Your task to perform on an android device: turn vacation reply on in the gmail app Image 0: 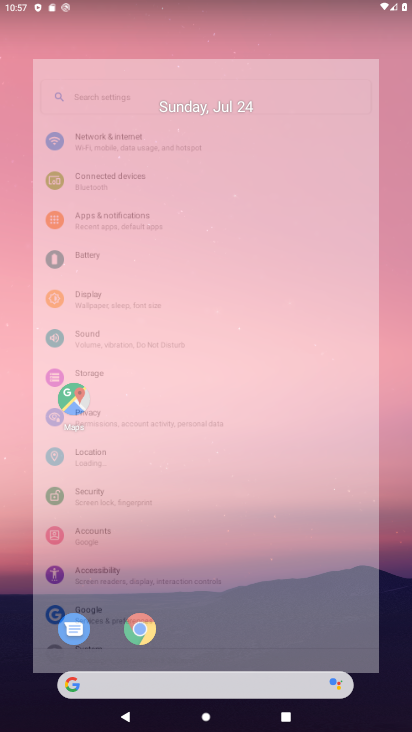
Step 0: press home button
Your task to perform on an android device: turn vacation reply on in the gmail app Image 1: 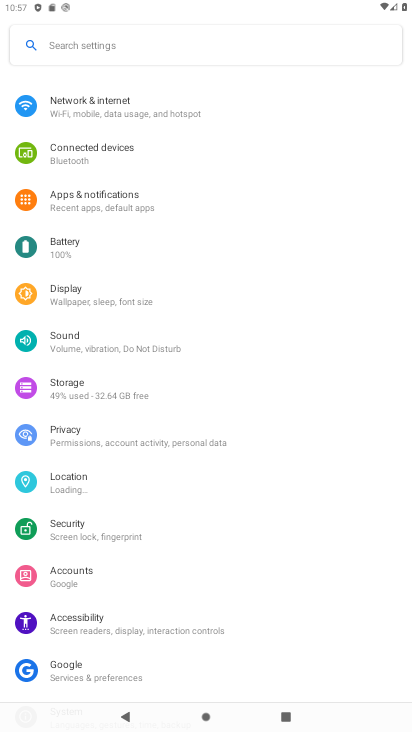
Step 1: drag from (331, 632) to (287, 122)
Your task to perform on an android device: turn vacation reply on in the gmail app Image 2: 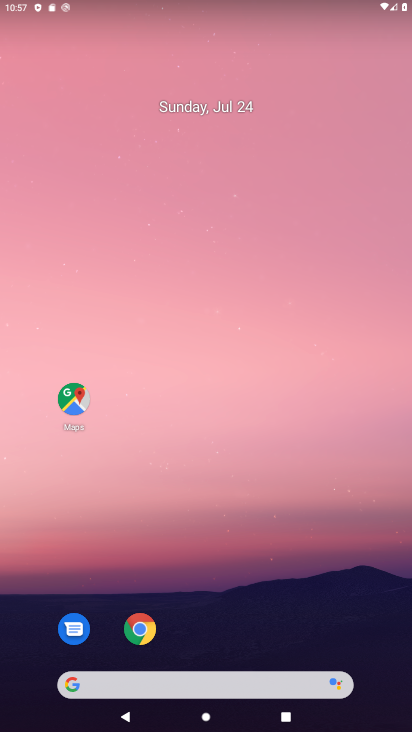
Step 2: drag from (203, 729) to (197, 109)
Your task to perform on an android device: turn vacation reply on in the gmail app Image 3: 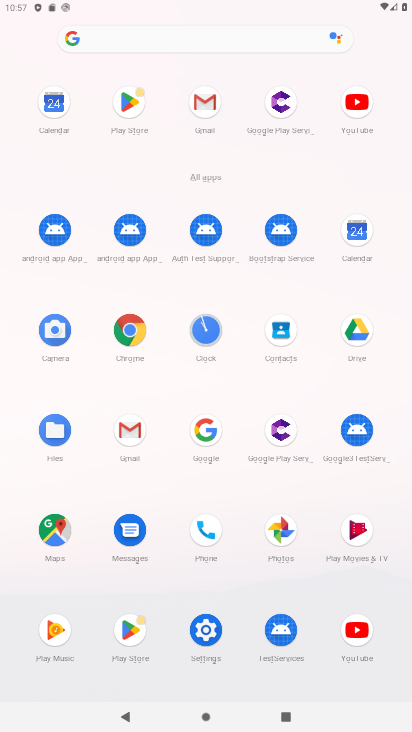
Step 3: click (112, 435)
Your task to perform on an android device: turn vacation reply on in the gmail app Image 4: 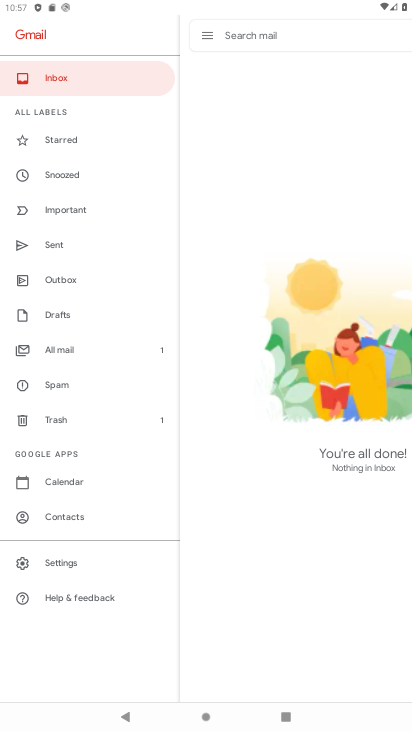
Step 4: click (50, 560)
Your task to perform on an android device: turn vacation reply on in the gmail app Image 5: 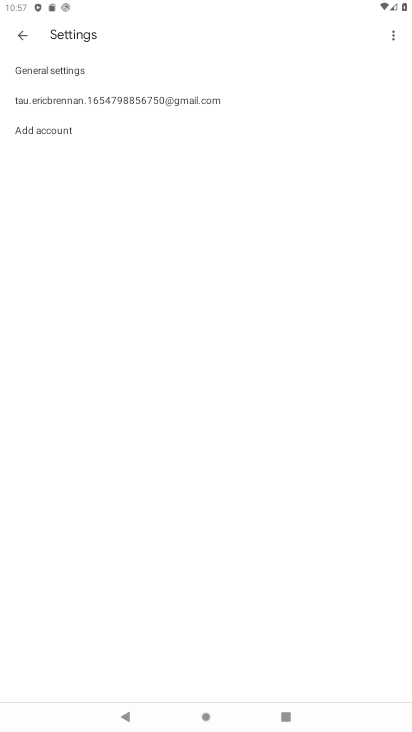
Step 5: click (146, 105)
Your task to perform on an android device: turn vacation reply on in the gmail app Image 6: 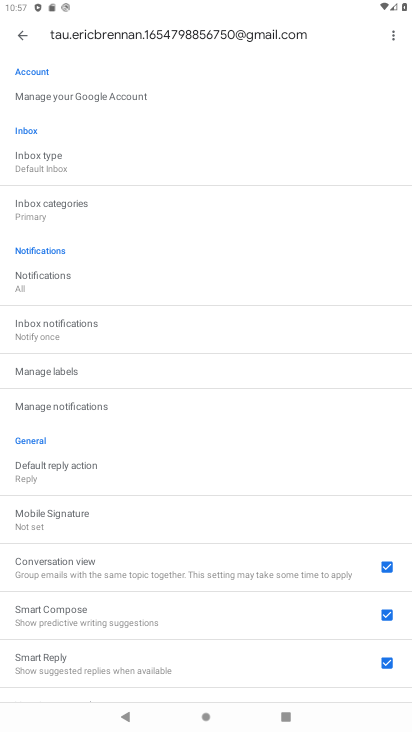
Step 6: click (42, 68)
Your task to perform on an android device: turn vacation reply on in the gmail app Image 7: 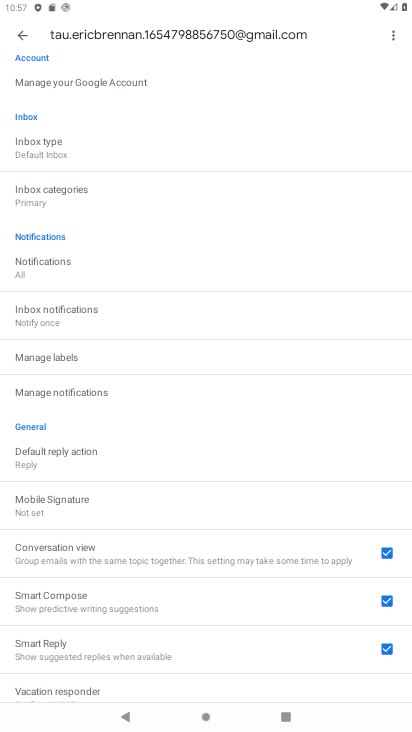
Step 7: click (91, 681)
Your task to perform on an android device: turn vacation reply on in the gmail app Image 8: 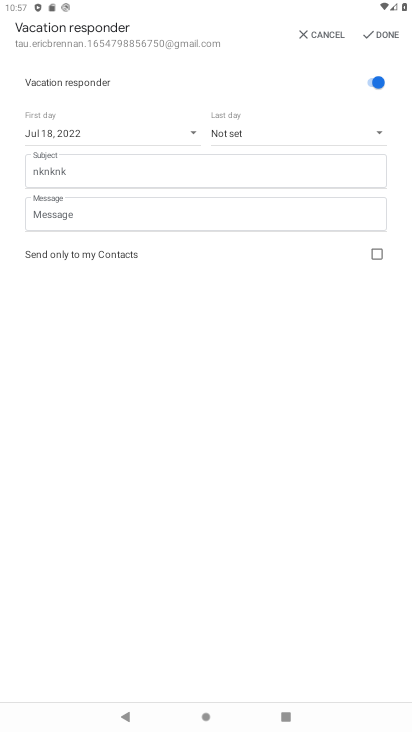
Step 8: click (62, 133)
Your task to perform on an android device: turn vacation reply on in the gmail app Image 9: 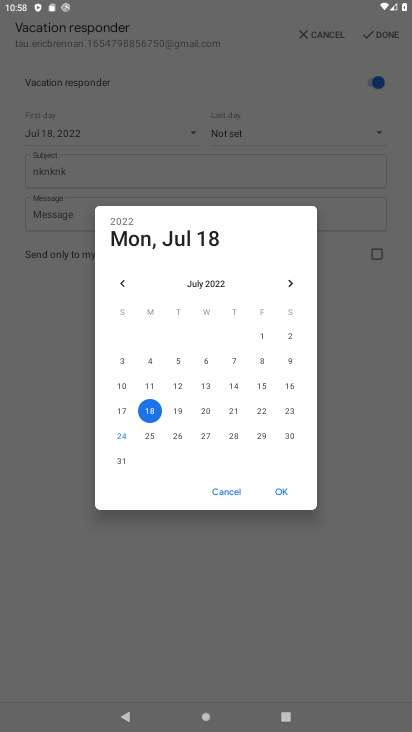
Step 9: click (145, 437)
Your task to perform on an android device: turn vacation reply on in the gmail app Image 10: 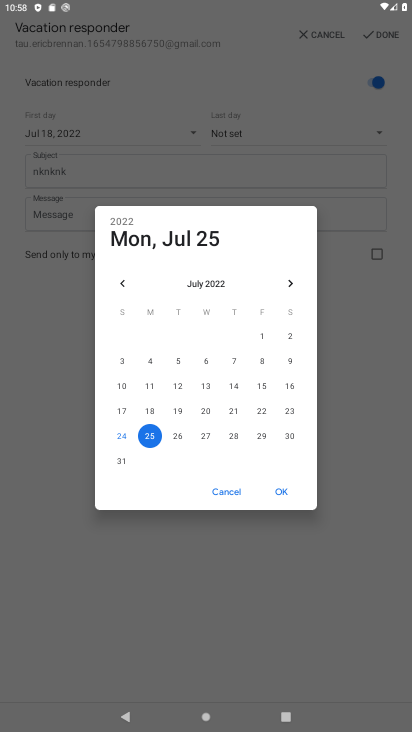
Step 10: click (272, 489)
Your task to perform on an android device: turn vacation reply on in the gmail app Image 11: 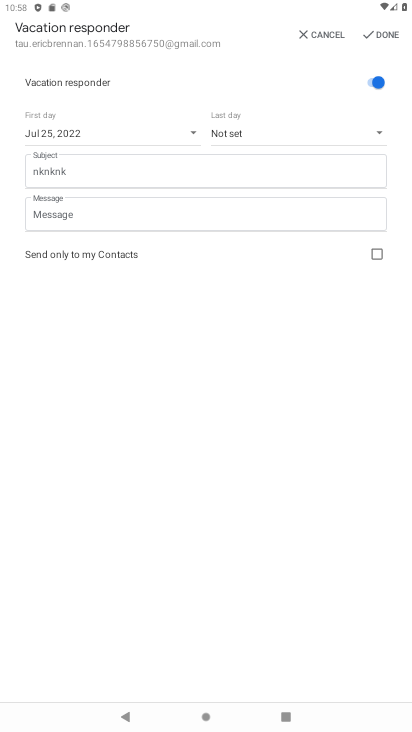
Step 11: click (254, 128)
Your task to perform on an android device: turn vacation reply on in the gmail app Image 12: 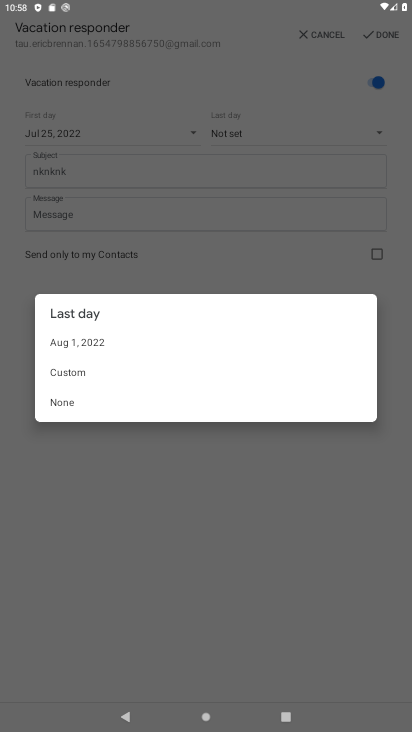
Step 12: click (76, 343)
Your task to perform on an android device: turn vacation reply on in the gmail app Image 13: 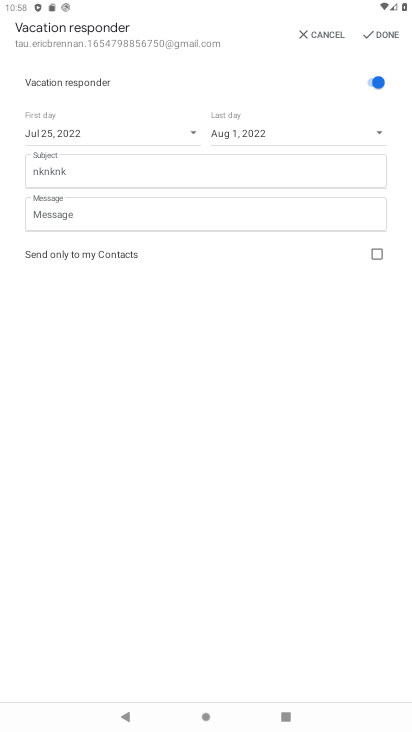
Step 13: click (391, 34)
Your task to perform on an android device: turn vacation reply on in the gmail app Image 14: 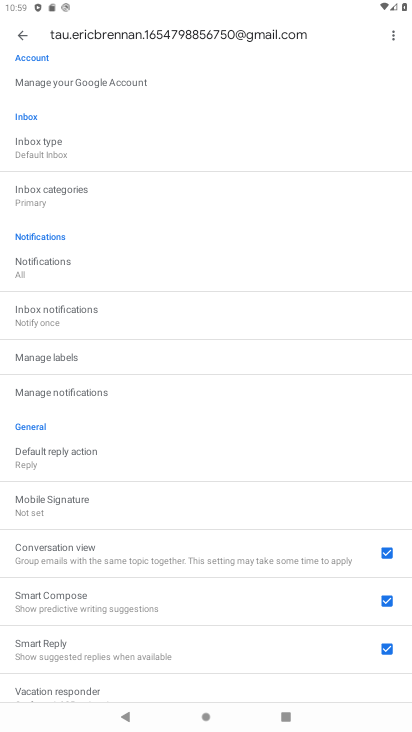
Step 14: click (305, 687)
Your task to perform on an android device: turn vacation reply on in the gmail app Image 15: 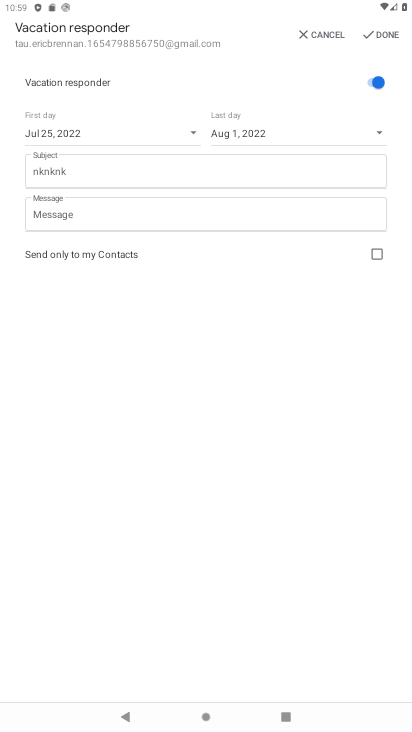
Step 15: task complete